Your task to perform on an android device: check out phone information Image 0: 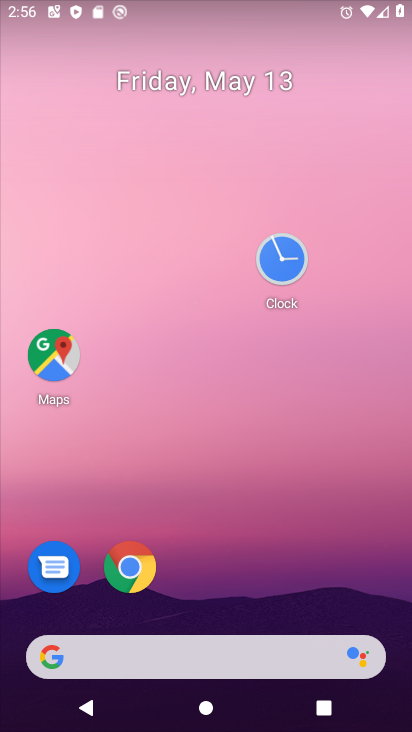
Step 0: drag from (304, 601) to (281, 56)
Your task to perform on an android device: check out phone information Image 1: 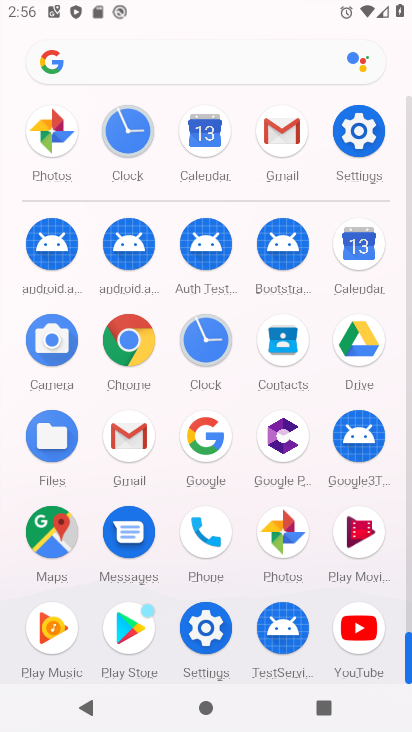
Step 1: click (340, 127)
Your task to perform on an android device: check out phone information Image 2: 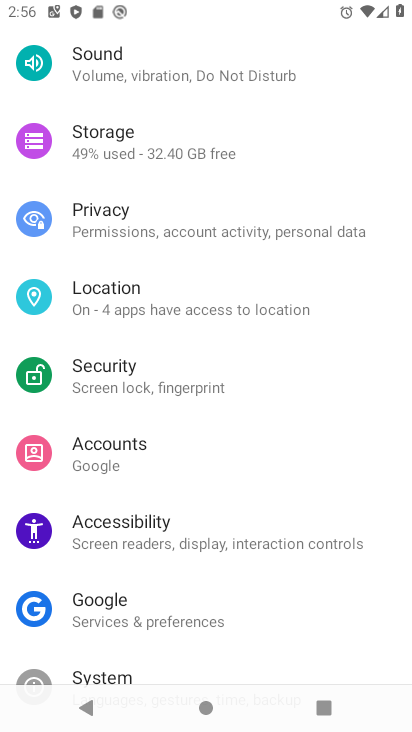
Step 2: drag from (205, 551) to (261, 191)
Your task to perform on an android device: check out phone information Image 3: 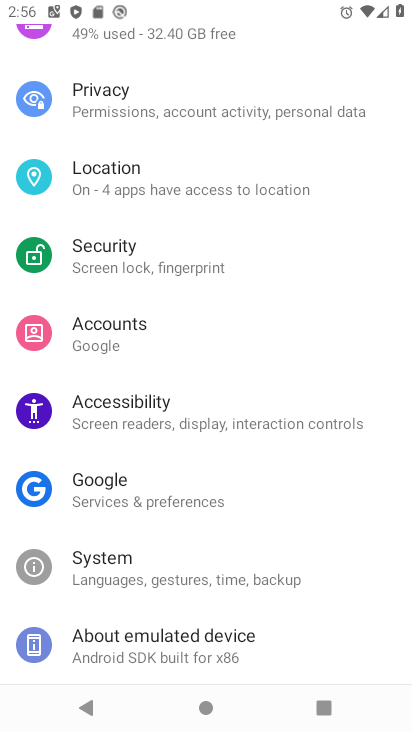
Step 3: drag from (198, 612) to (268, 326)
Your task to perform on an android device: check out phone information Image 4: 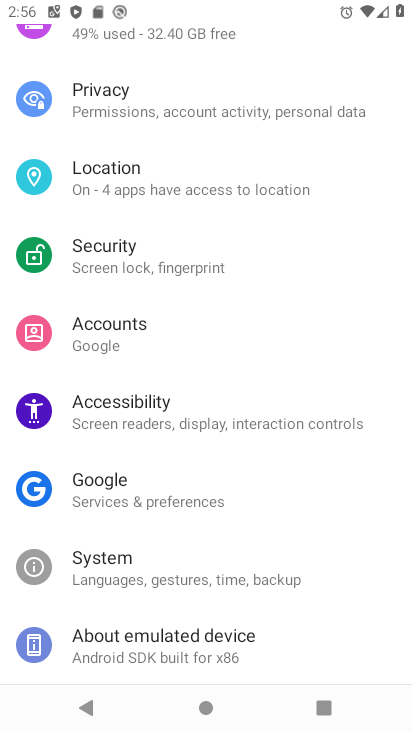
Step 4: click (195, 632)
Your task to perform on an android device: check out phone information Image 5: 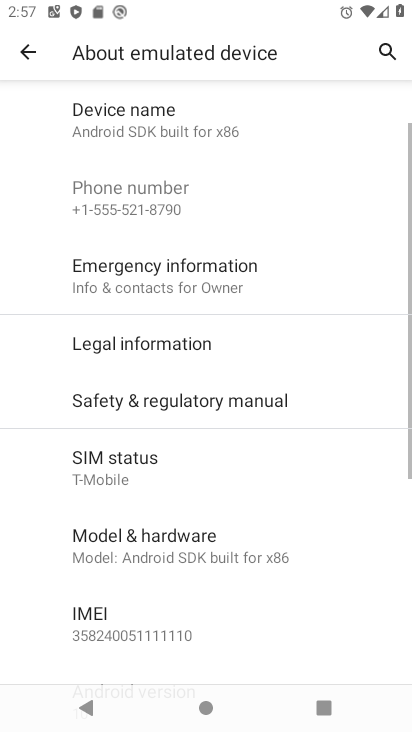
Step 5: task complete